Your task to perform on an android device: allow notifications from all sites in the chrome app Image 0: 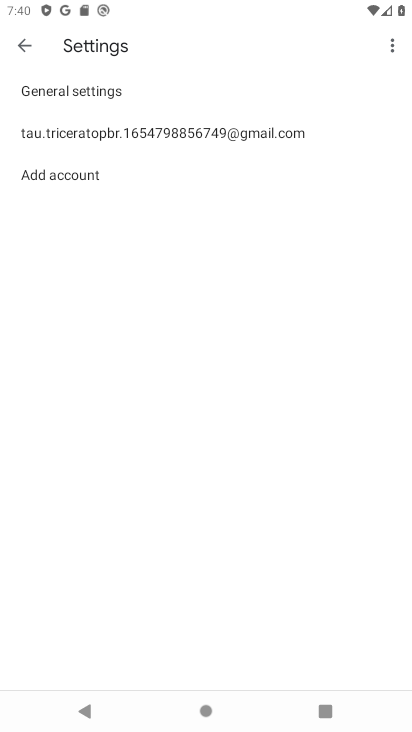
Step 0: press home button
Your task to perform on an android device: allow notifications from all sites in the chrome app Image 1: 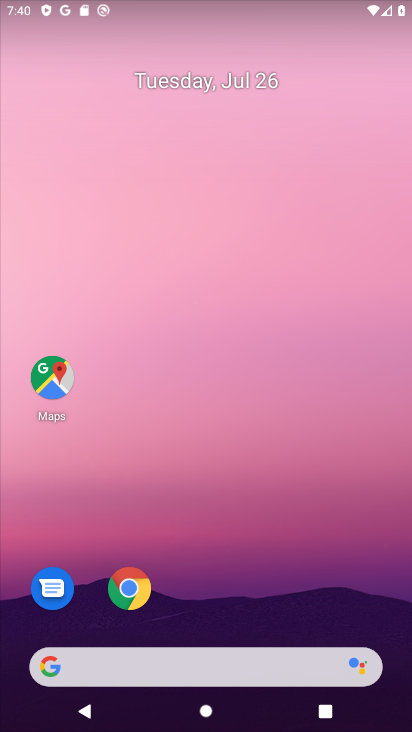
Step 1: drag from (184, 631) to (204, 133)
Your task to perform on an android device: allow notifications from all sites in the chrome app Image 2: 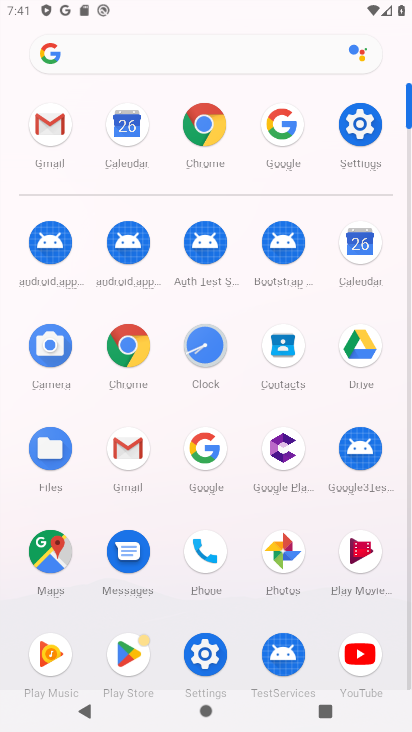
Step 2: click (136, 342)
Your task to perform on an android device: allow notifications from all sites in the chrome app Image 3: 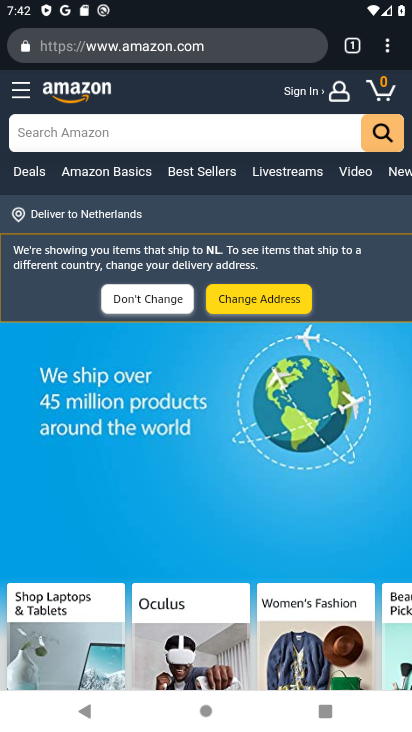
Step 3: click (391, 52)
Your task to perform on an android device: allow notifications from all sites in the chrome app Image 4: 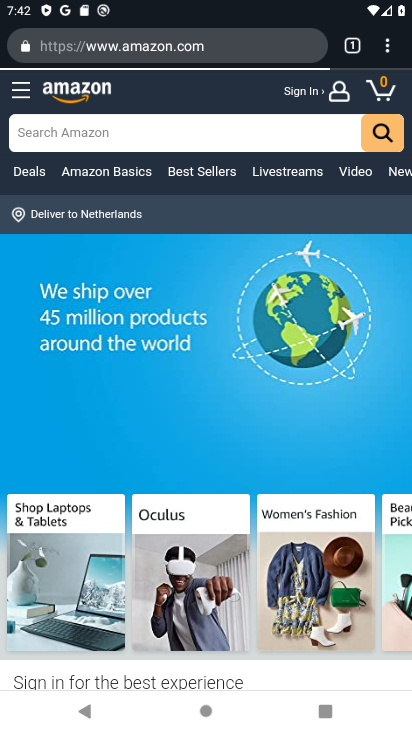
Step 4: click (389, 52)
Your task to perform on an android device: allow notifications from all sites in the chrome app Image 5: 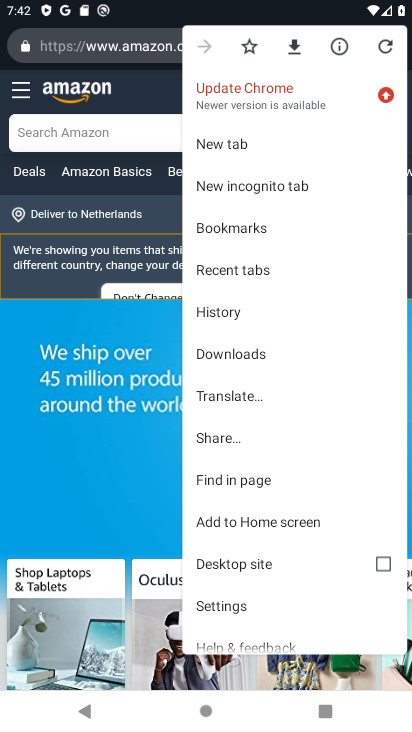
Step 5: click (225, 603)
Your task to perform on an android device: allow notifications from all sites in the chrome app Image 6: 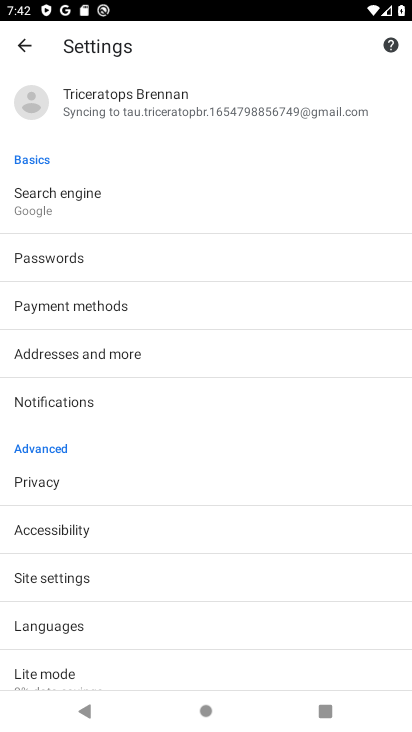
Step 6: click (95, 396)
Your task to perform on an android device: allow notifications from all sites in the chrome app Image 7: 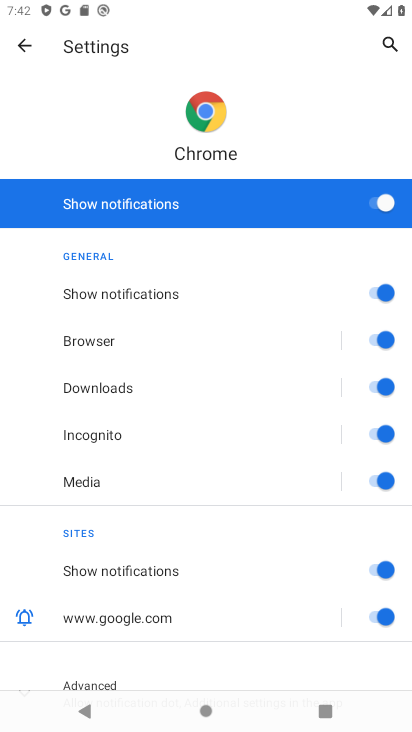
Step 7: task complete